Your task to perform on an android device: Show me recent news Image 0: 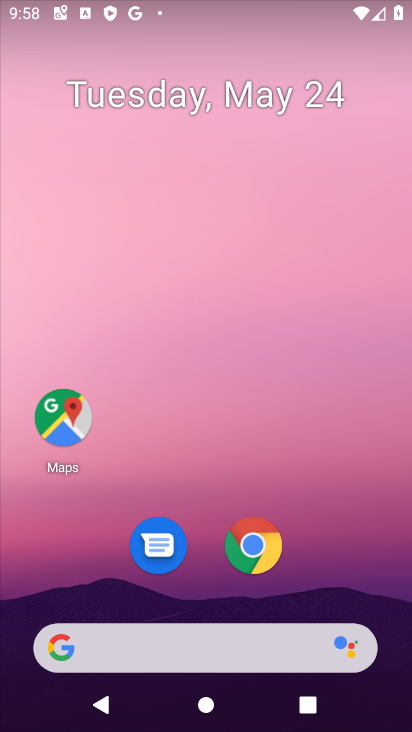
Step 0: click (178, 640)
Your task to perform on an android device: Show me recent news Image 1: 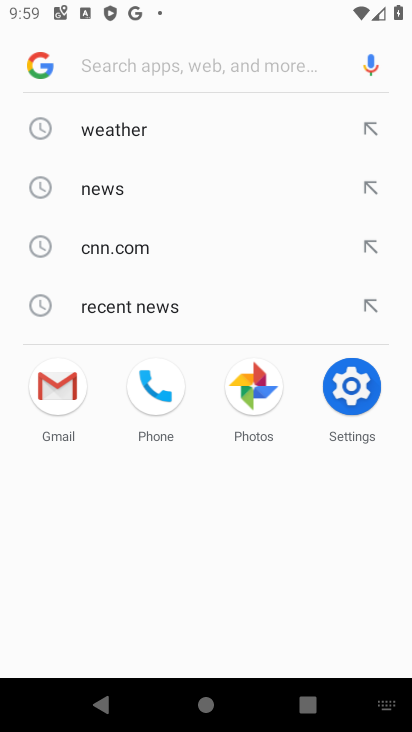
Step 1: click (105, 303)
Your task to perform on an android device: Show me recent news Image 2: 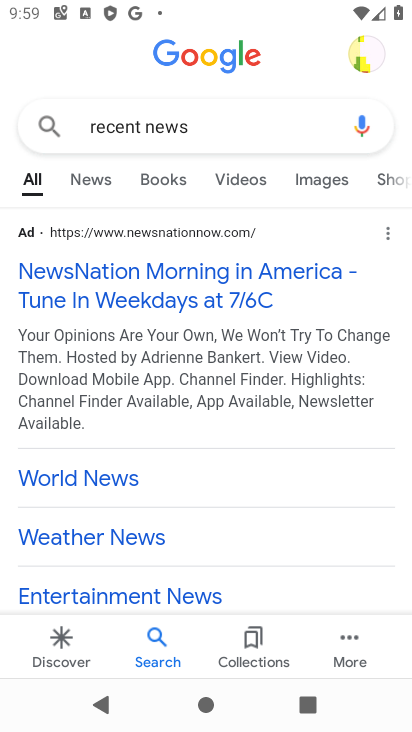
Step 2: click (100, 175)
Your task to perform on an android device: Show me recent news Image 3: 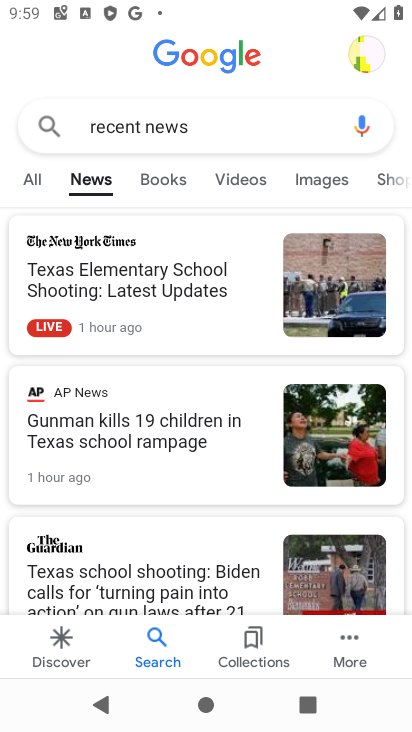
Step 3: click (101, 271)
Your task to perform on an android device: Show me recent news Image 4: 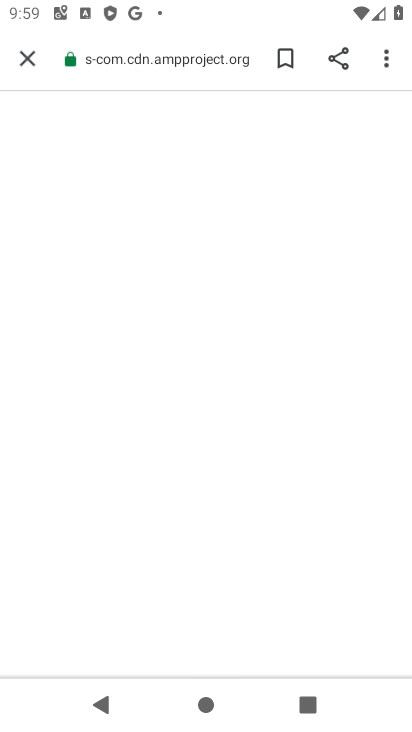
Step 4: task complete